Your task to perform on an android device: turn on improve location accuracy Image 0: 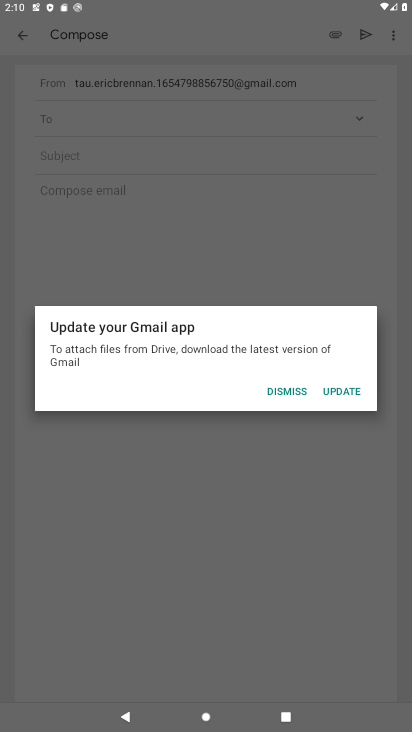
Step 0: press home button
Your task to perform on an android device: turn on improve location accuracy Image 1: 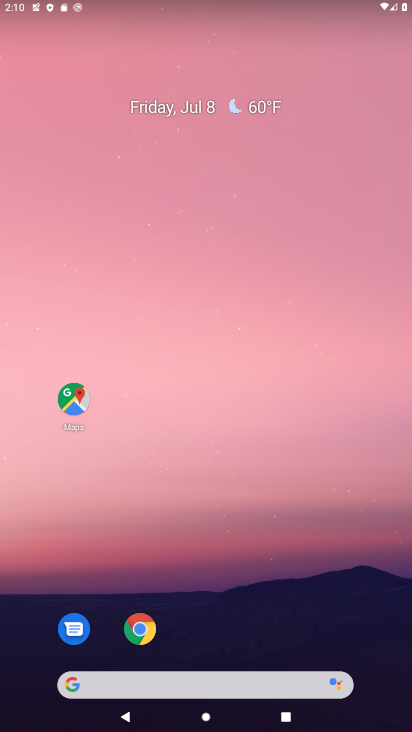
Step 1: drag from (190, 633) to (182, 255)
Your task to perform on an android device: turn on improve location accuracy Image 2: 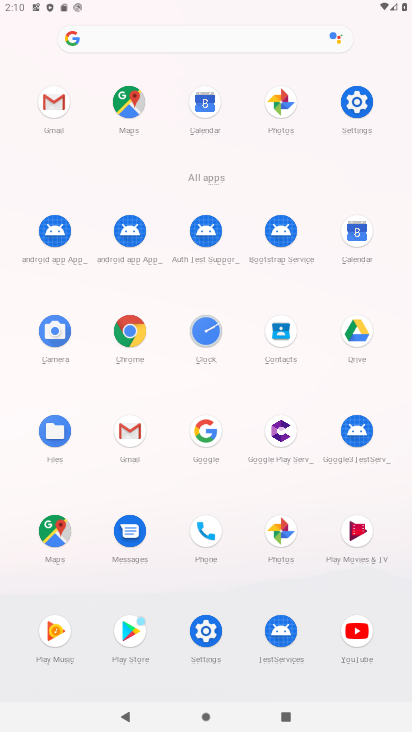
Step 2: click (353, 104)
Your task to perform on an android device: turn on improve location accuracy Image 3: 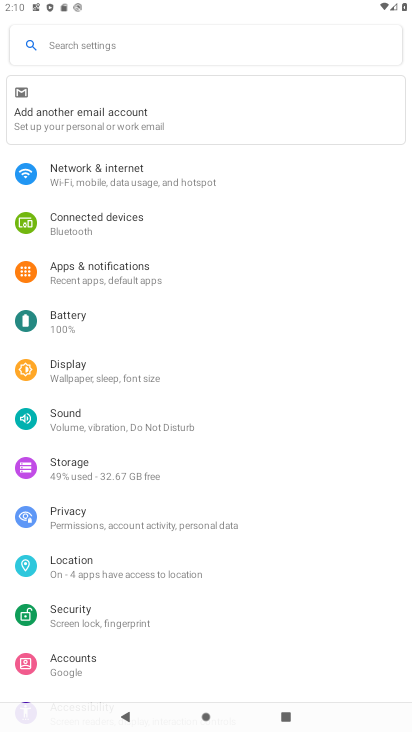
Step 3: click (105, 571)
Your task to perform on an android device: turn on improve location accuracy Image 4: 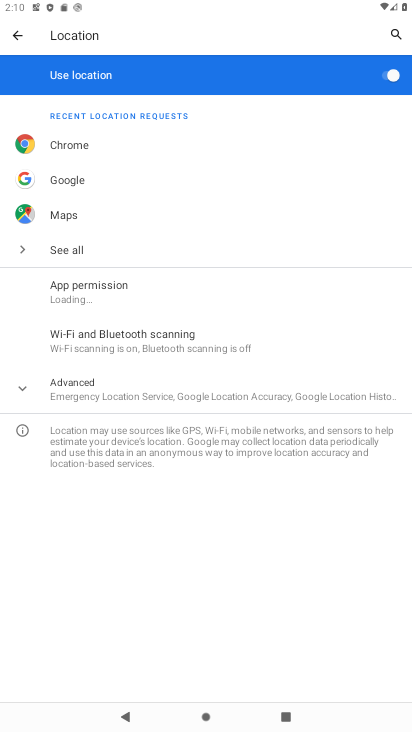
Step 4: click (112, 384)
Your task to perform on an android device: turn on improve location accuracy Image 5: 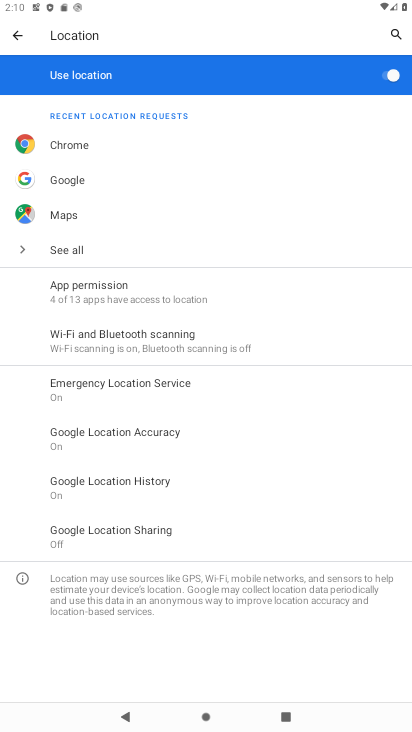
Step 5: click (148, 439)
Your task to perform on an android device: turn on improve location accuracy Image 6: 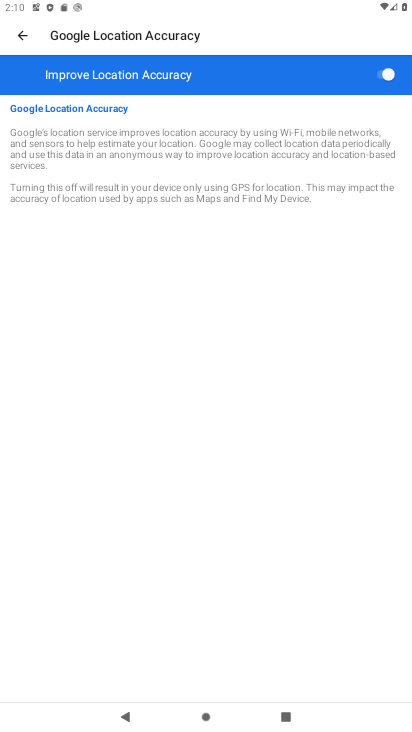
Step 6: task complete